Your task to perform on an android device: Open Wikipedia Image 0: 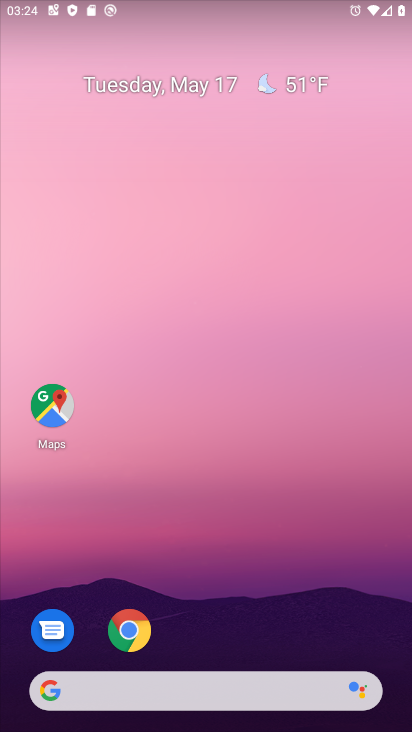
Step 0: click (139, 634)
Your task to perform on an android device: Open Wikipedia Image 1: 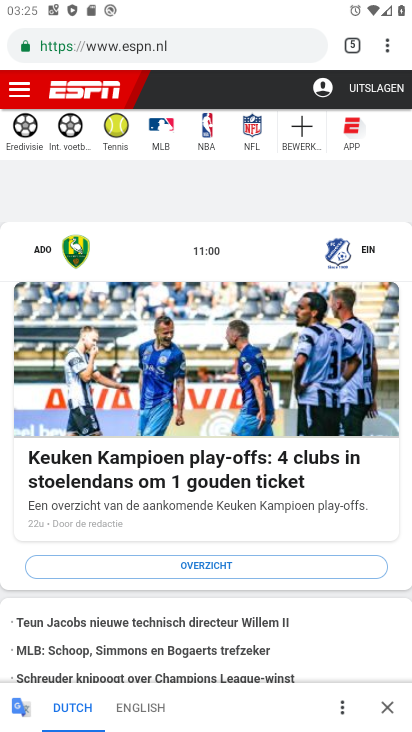
Step 1: click (399, 42)
Your task to perform on an android device: Open Wikipedia Image 2: 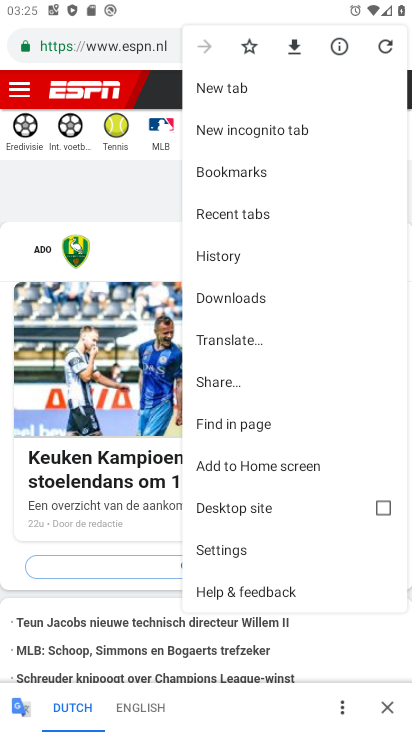
Step 2: click (117, 192)
Your task to perform on an android device: Open Wikipedia Image 3: 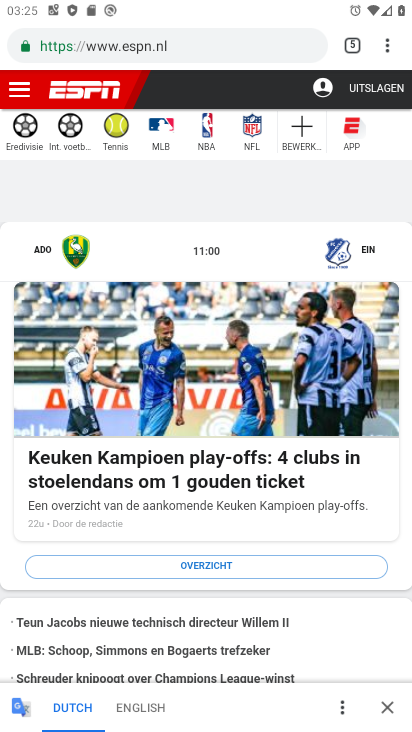
Step 3: click (346, 44)
Your task to perform on an android device: Open Wikipedia Image 4: 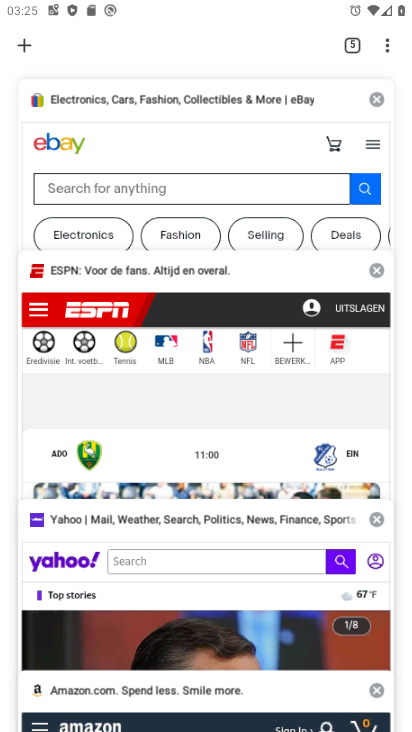
Step 4: click (33, 48)
Your task to perform on an android device: Open Wikipedia Image 5: 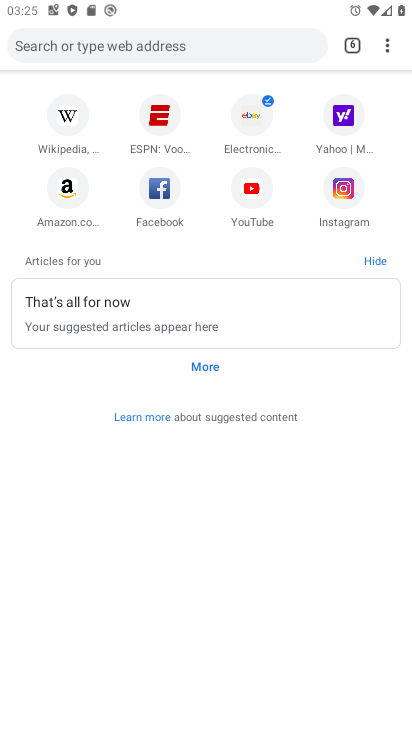
Step 5: click (57, 120)
Your task to perform on an android device: Open Wikipedia Image 6: 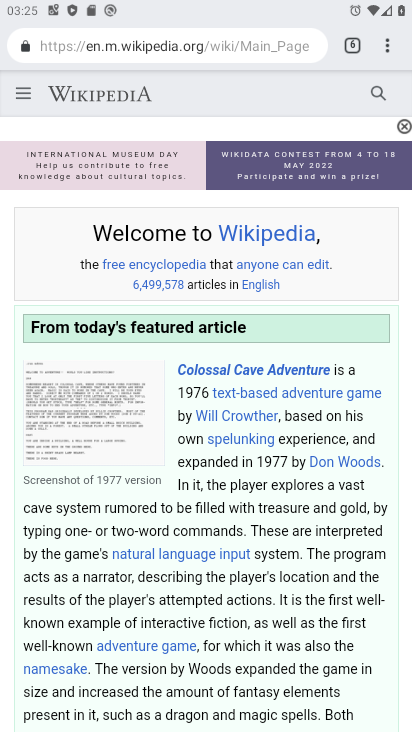
Step 6: task complete